Your task to perform on an android device: Go to display settings Image 0: 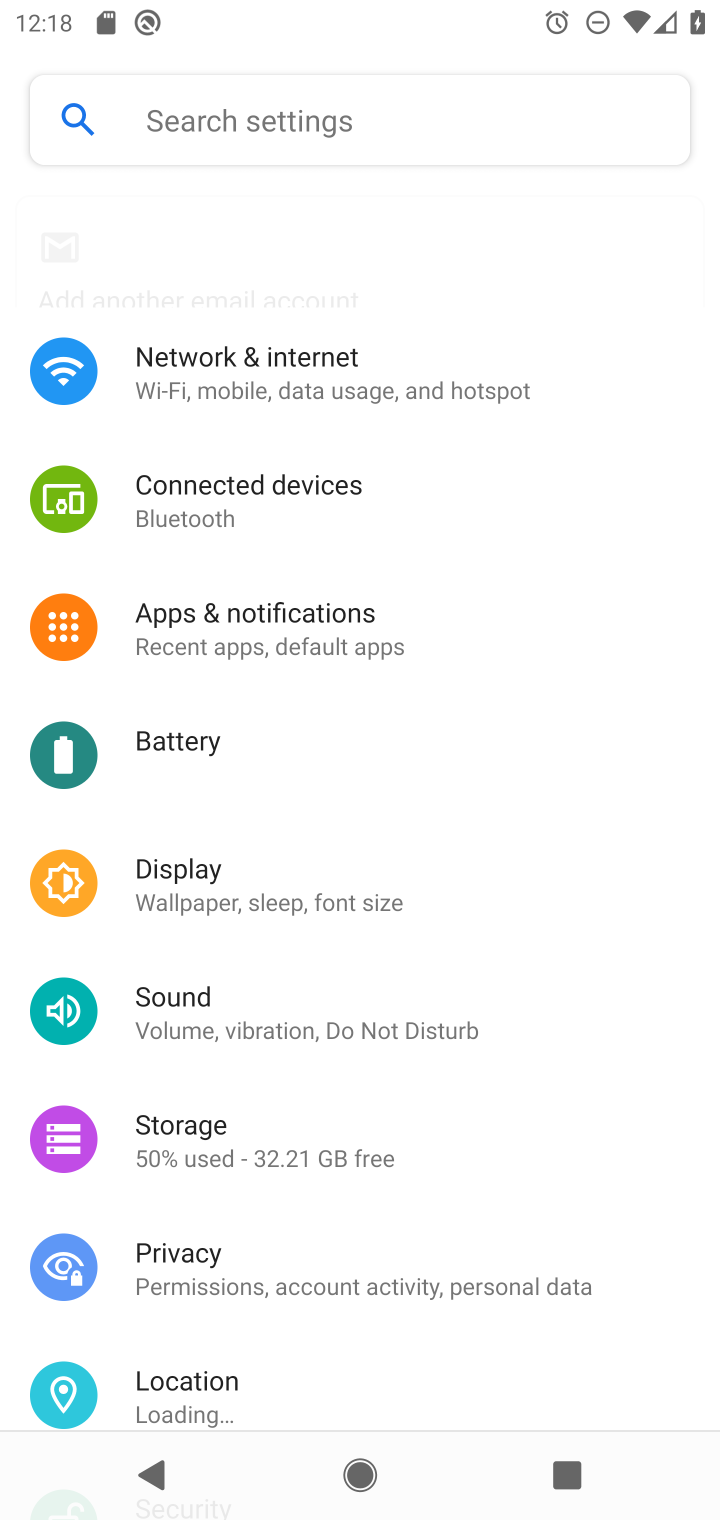
Step 0: press home button
Your task to perform on an android device: Go to display settings Image 1: 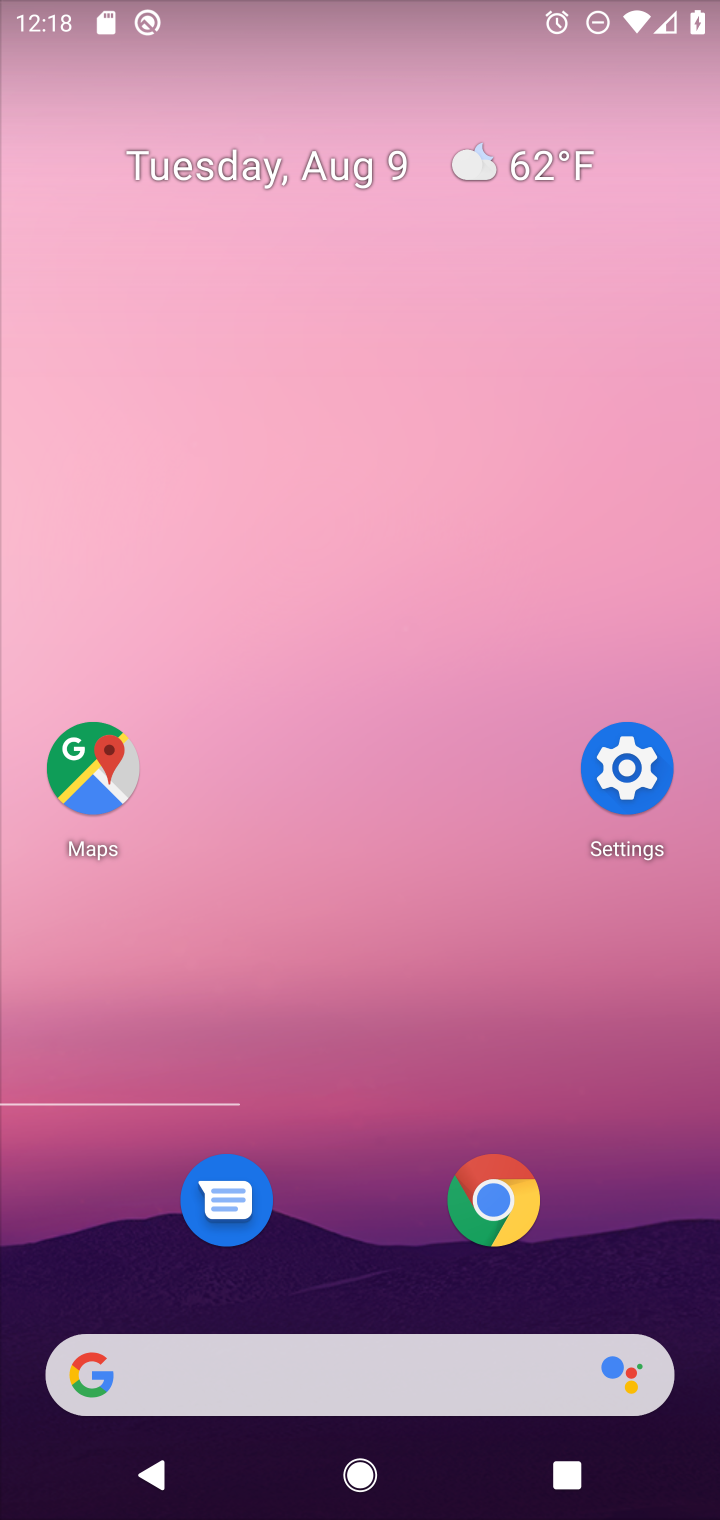
Step 1: click (627, 766)
Your task to perform on an android device: Go to display settings Image 2: 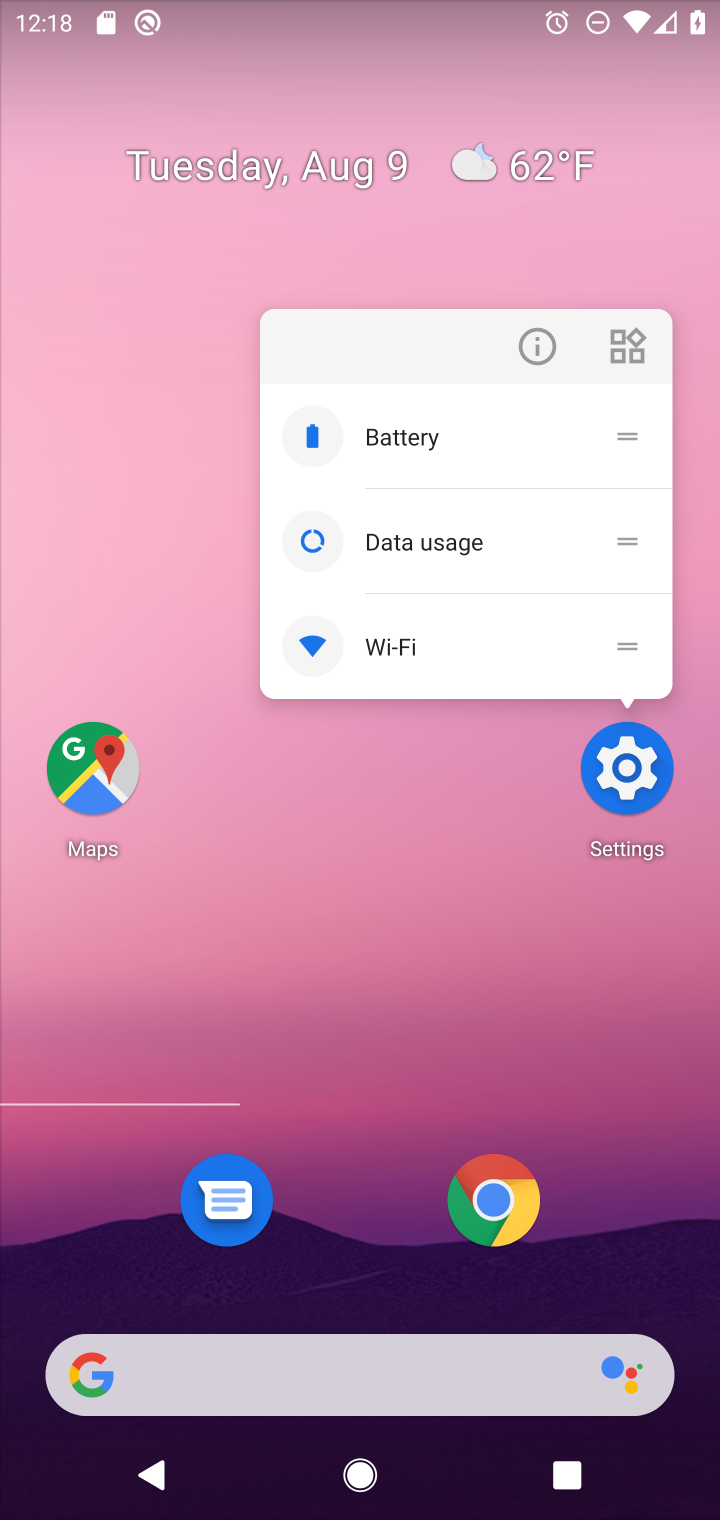
Step 2: click (617, 776)
Your task to perform on an android device: Go to display settings Image 3: 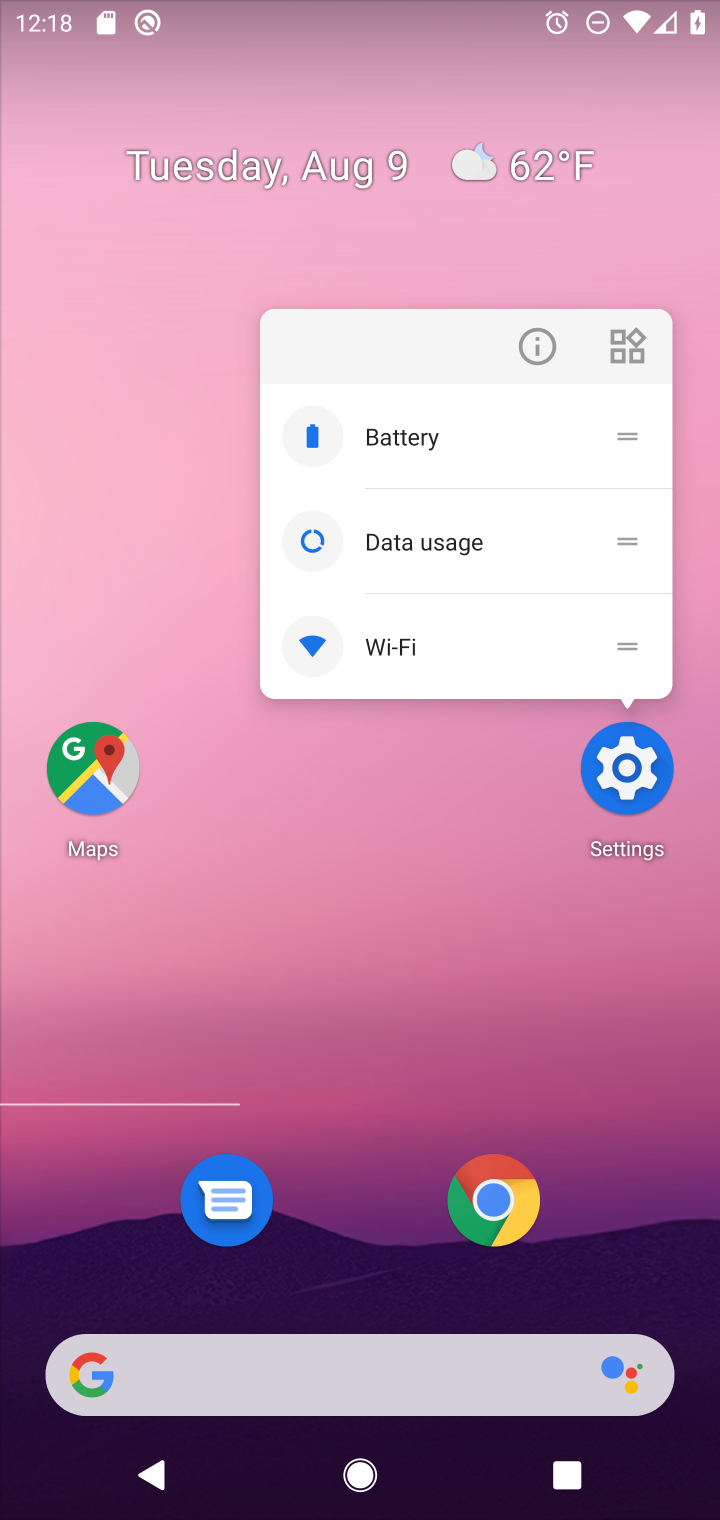
Step 3: click (617, 777)
Your task to perform on an android device: Go to display settings Image 4: 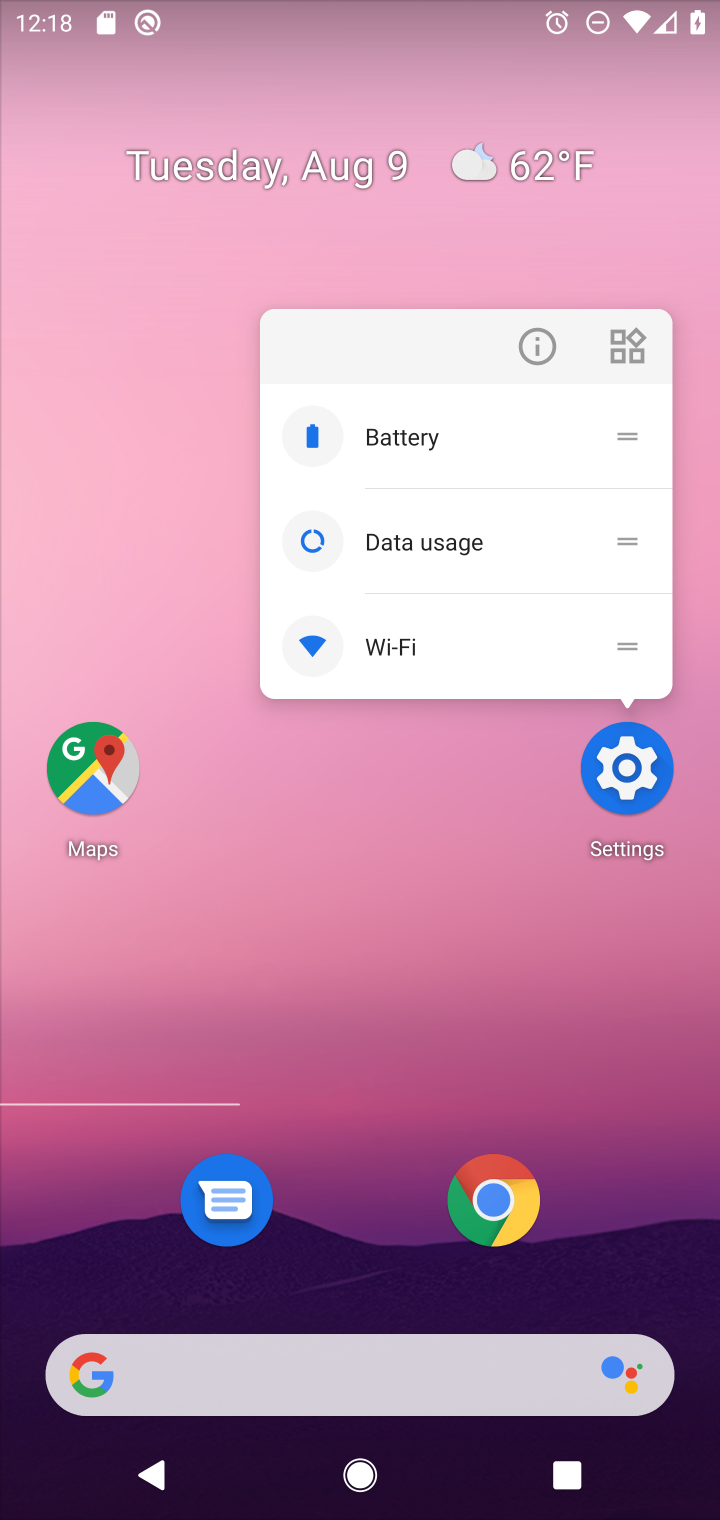
Step 4: click (643, 759)
Your task to perform on an android device: Go to display settings Image 5: 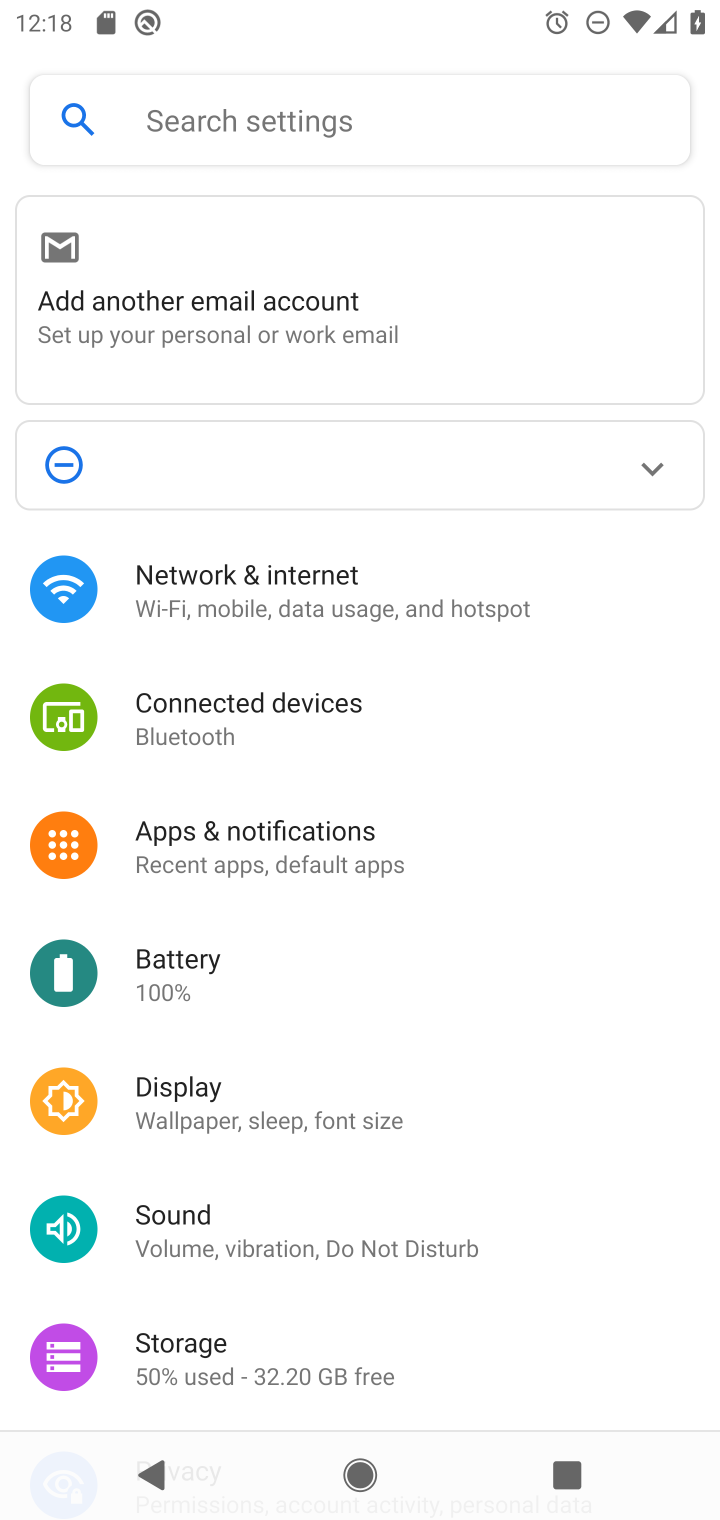
Step 5: click (164, 1098)
Your task to perform on an android device: Go to display settings Image 6: 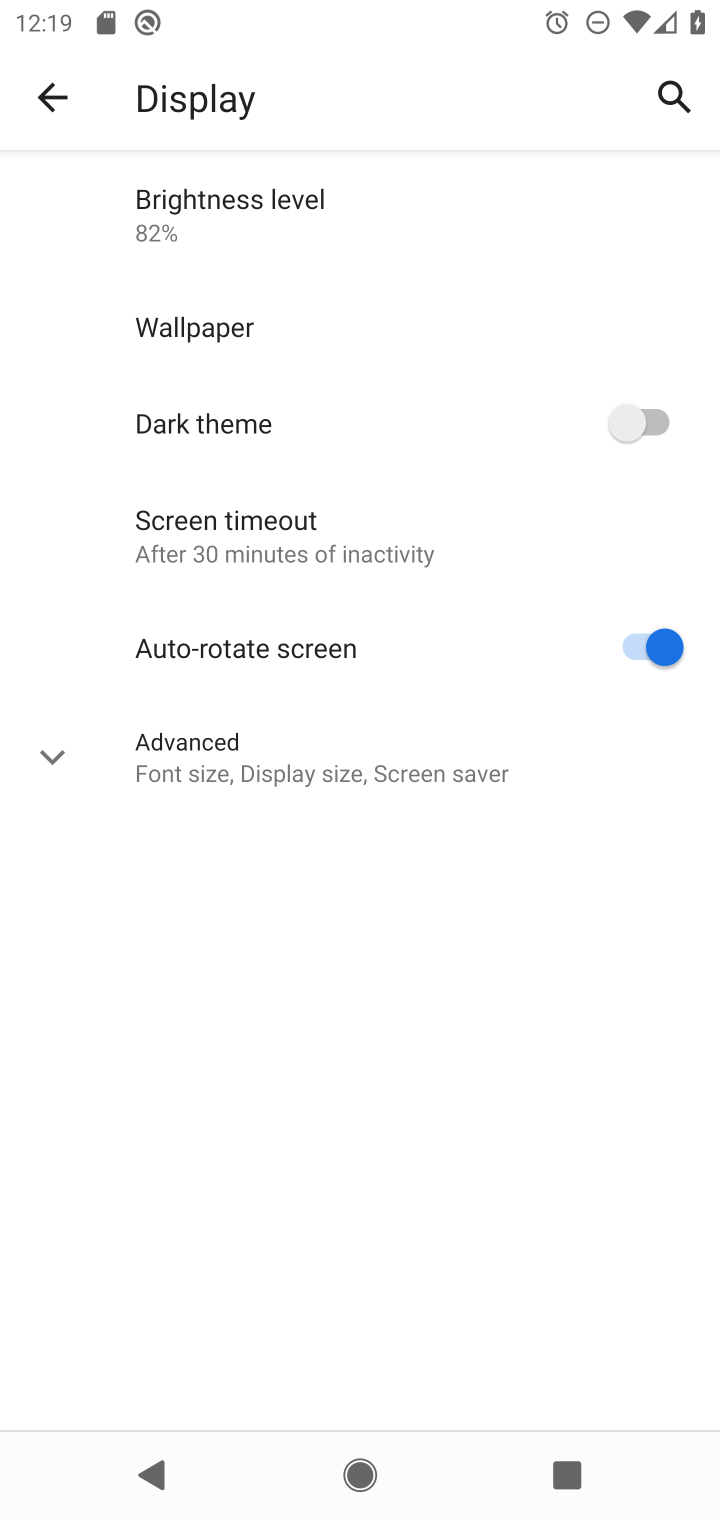
Step 6: task complete